Your task to perform on an android device: open wifi settings Image 0: 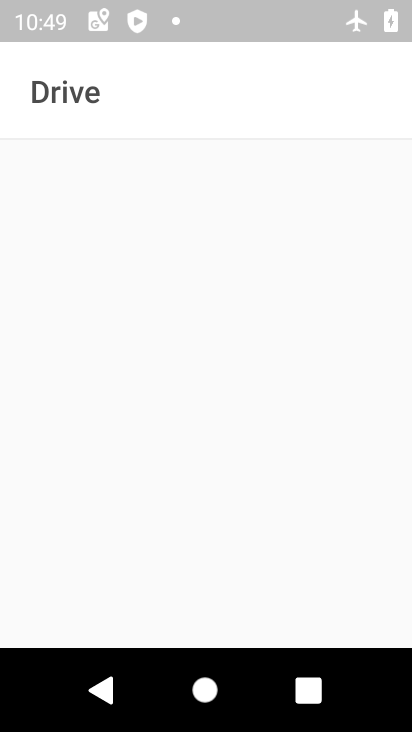
Step 0: press home button
Your task to perform on an android device: open wifi settings Image 1: 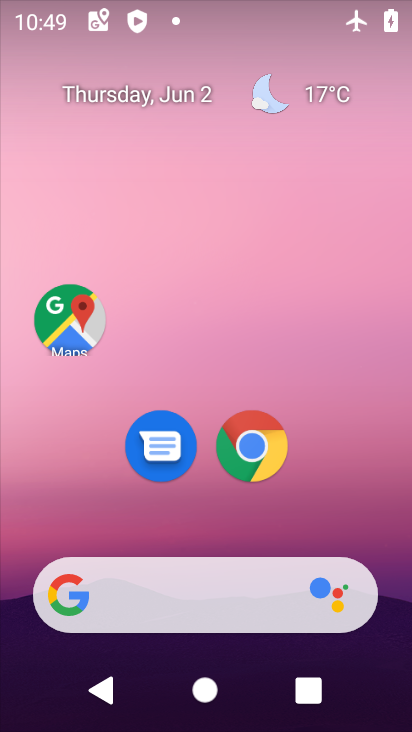
Step 1: drag from (352, 492) to (368, 70)
Your task to perform on an android device: open wifi settings Image 2: 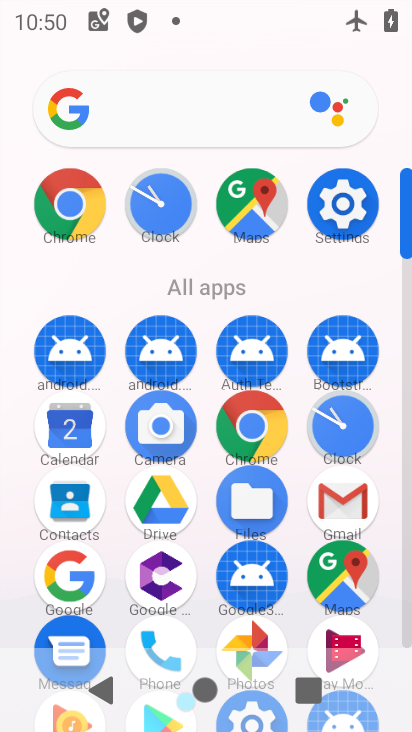
Step 2: click (354, 222)
Your task to perform on an android device: open wifi settings Image 3: 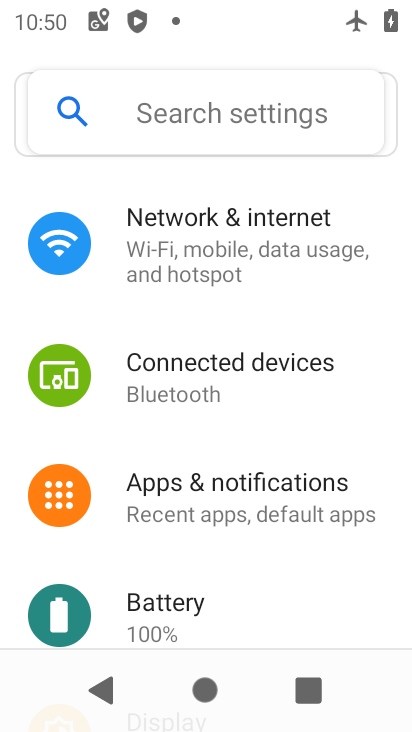
Step 3: click (300, 258)
Your task to perform on an android device: open wifi settings Image 4: 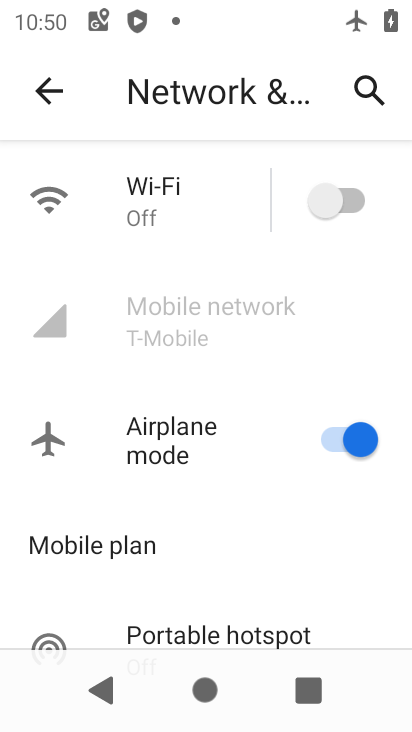
Step 4: click (151, 212)
Your task to perform on an android device: open wifi settings Image 5: 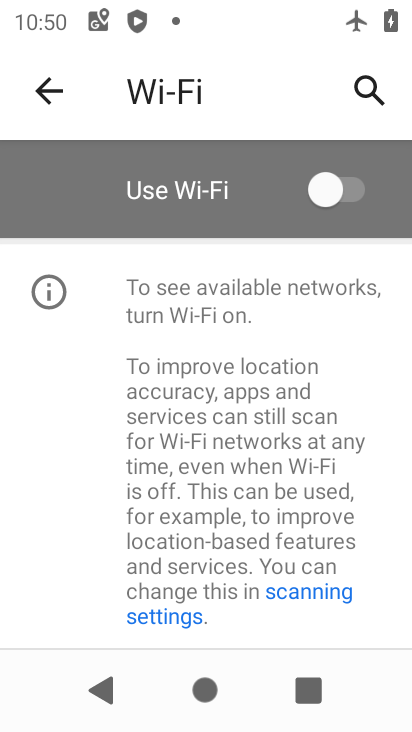
Step 5: task complete